Your task to perform on an android device: Open the calendar app, open the side menu, and click the "Day" option Image 0: 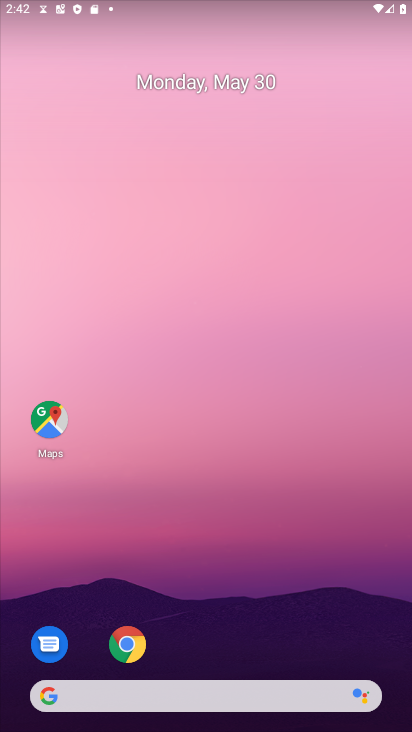
Step 0: drag from (314, 660) to (281, 149)
Your task to perform on an android device: Open the calendar app, open the side menu, and click the "Day" option Image 1: 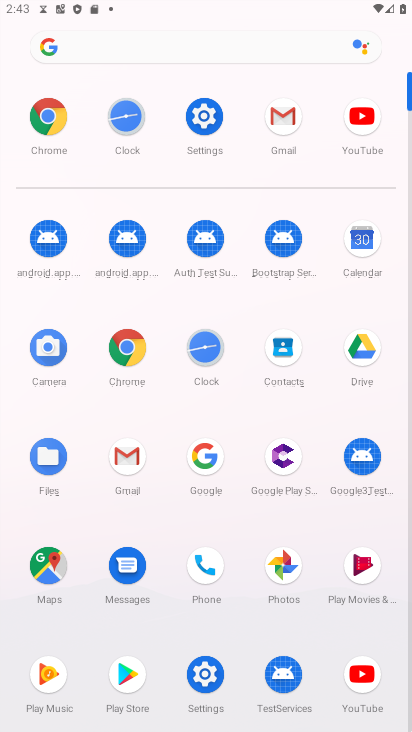
Step 1: click (360, 235)
Your task to perform on an android device: Open the calendar app, open the side menu, and click the "Day" option Image 2: 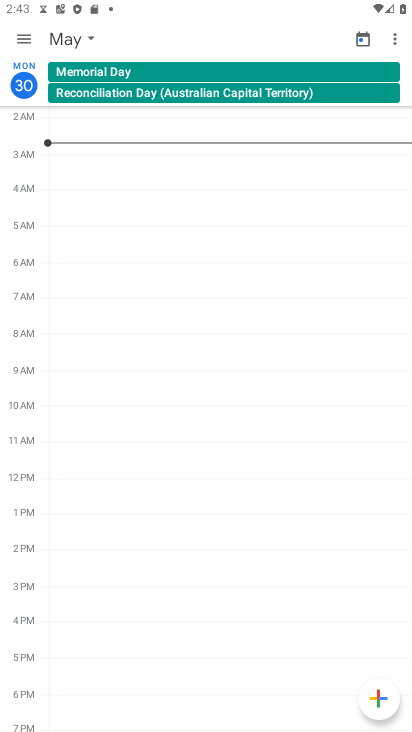
Step 2: click (24, 38)
Your task to perform on an android device: Open the calendar app, open the side menu, and click the "Day" option Image 3: 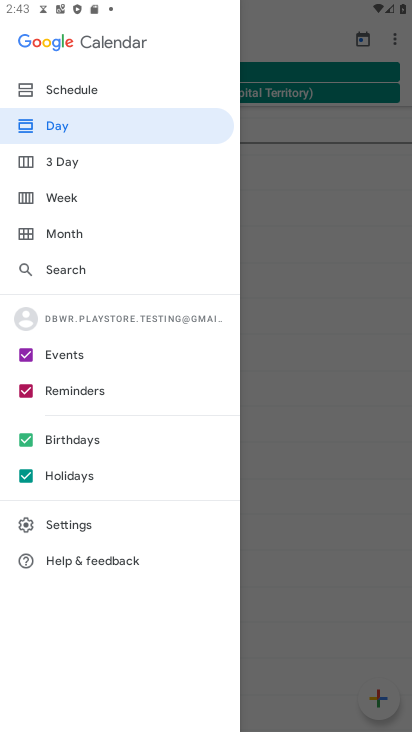
Step 3: click (61, 122)
Your task to perform on an android device: Open the calendar app, open the side menu, and click the "Day" option Image 4: 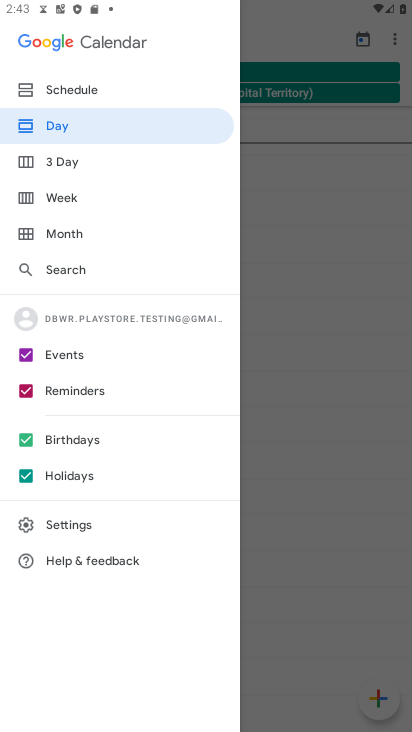
Step 4: task complete